Your task to perform on an android device: turn on javascript in the chrome app Image 0: 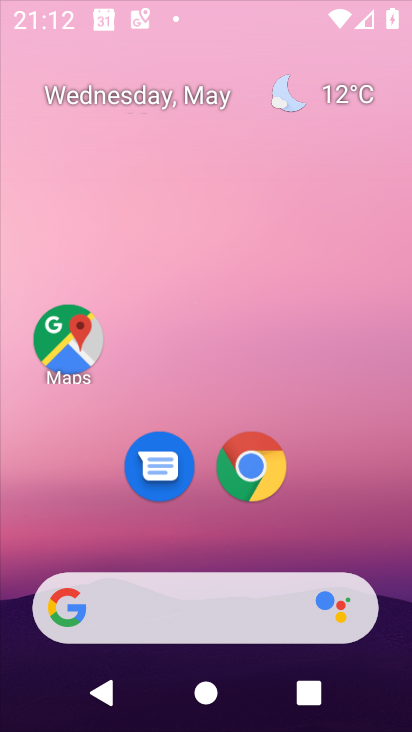
Step 0: press home button
Your task to perform on an android device: turn on javascript in the chrome app Image 1: 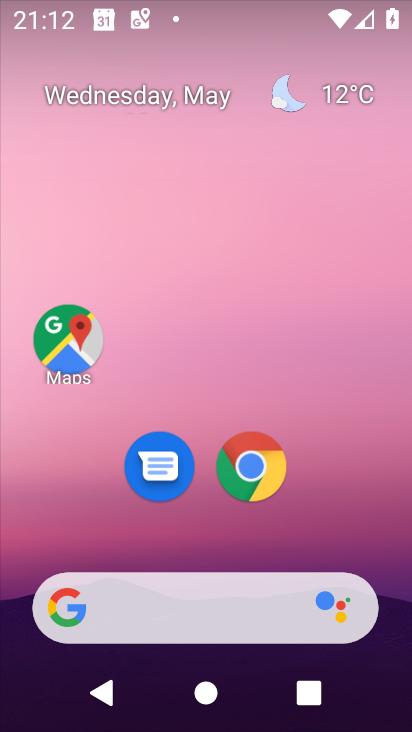
Step 1: click (242, 466)
Your task to perform on an android device: turn on javascript in the chrome app Image 2: 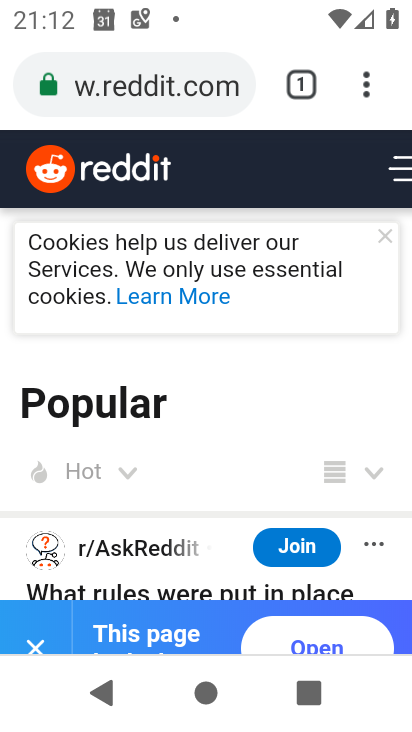
Step 2: press home button
Your task to perform on an android device: turn on javascript in the chrome app Image 3: 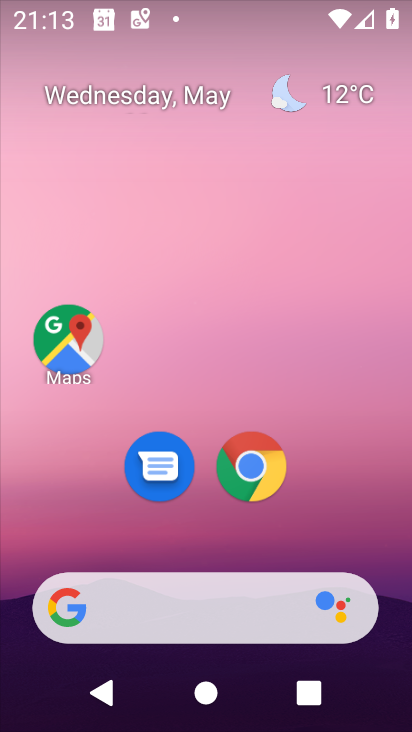
Step 3: click (254, 463)
Your task to perform on an android device: turn on javascript in the chrome app Image 4: 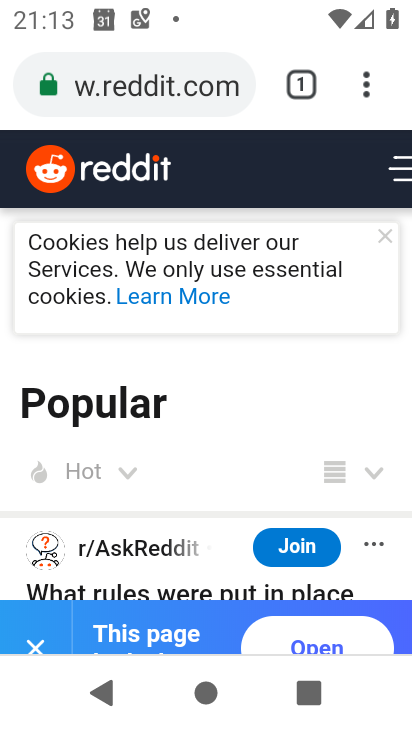
Step 4: click (355, 82)
Your task to perform on an android device: turn on javascript in the chrome app Image 5: 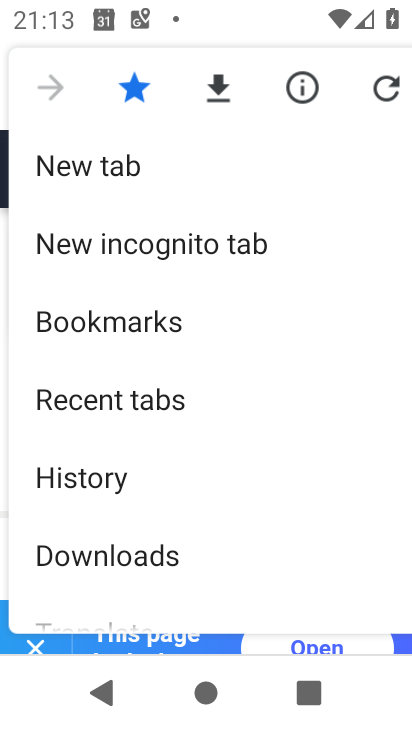
Step 5: drag from (199, 518) to (200, 110)
Your task to perform on an android device: turn on javascript in the chrome app Image 6: 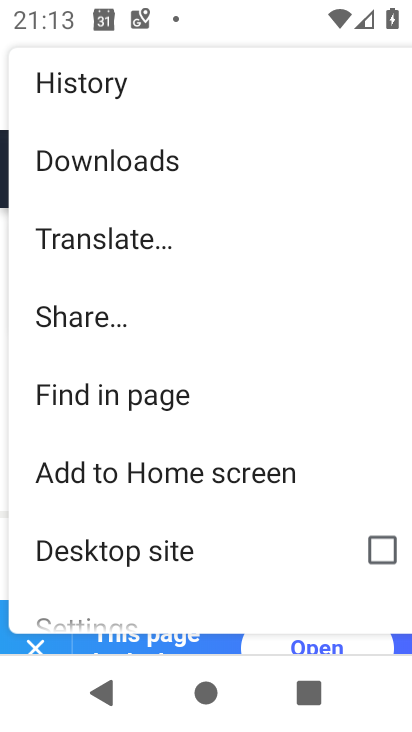
Step 6: drag from (201, 547) to (229, 139)
Your task to perform on an android device: turn on javascript in the chrome app Image 7: 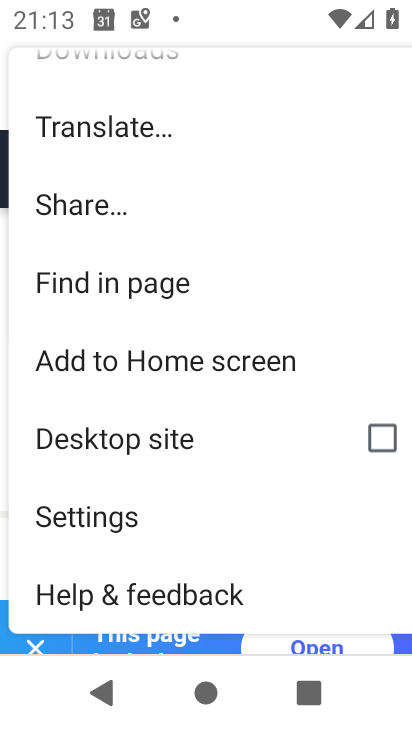
Step 7: click (147, 509)
Your task to perform on an android device: turn on javascript in the chrome app Image 8: 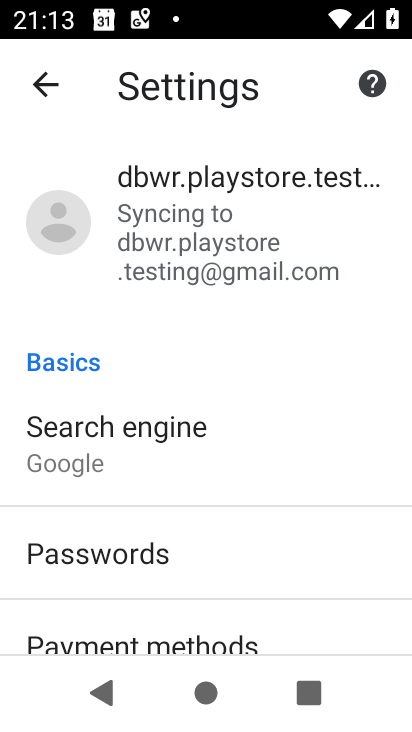
Step 8: drag from (203, 589) to (210, 241)
Your task to perform on an android device: turn on javascript in the chrome app Image 9: 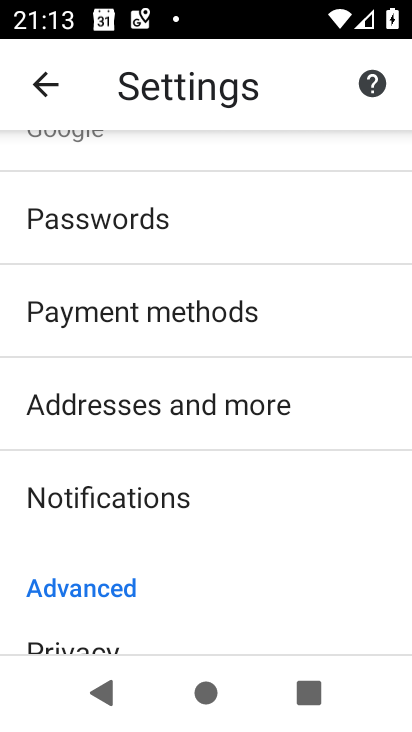
Step 9: drag from (194, 590) to (219, 79)
Your task to perform on an android device: turn on javascript in the chrome app Image 10: 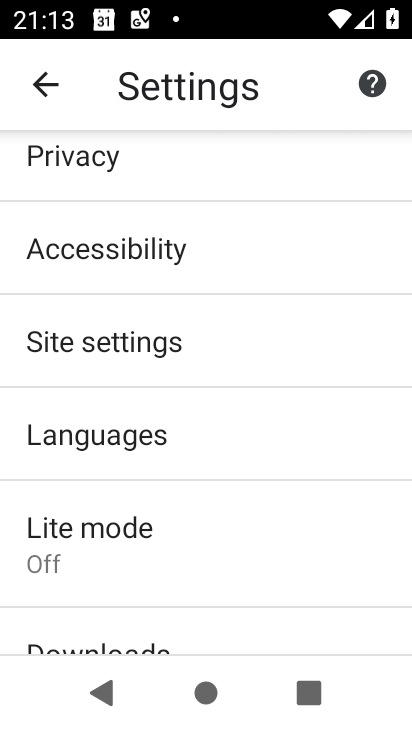
Step 10: click (182, 351)
Your task to perform on an android device: turn on javascript in the chrome app Image 11: 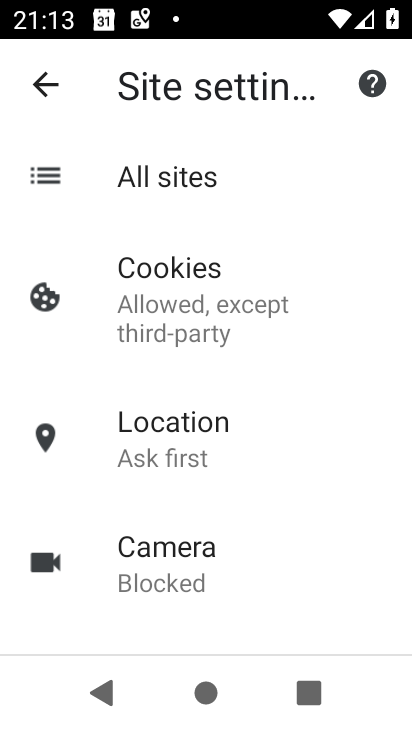
Step 11: drag from (202, 552) to (242, 120)
Your task to perform on an android device: turn on javascript in the chrome app Image 12: 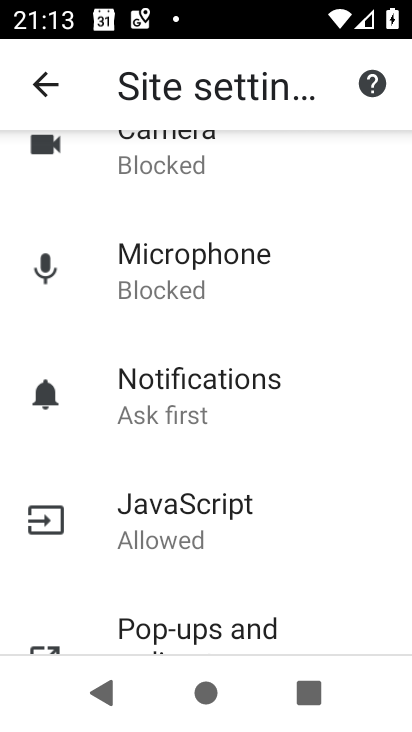
Step 12: click (211, 526)
Your task to perform on an android device: turn on javascript in the chrome app Image 13: 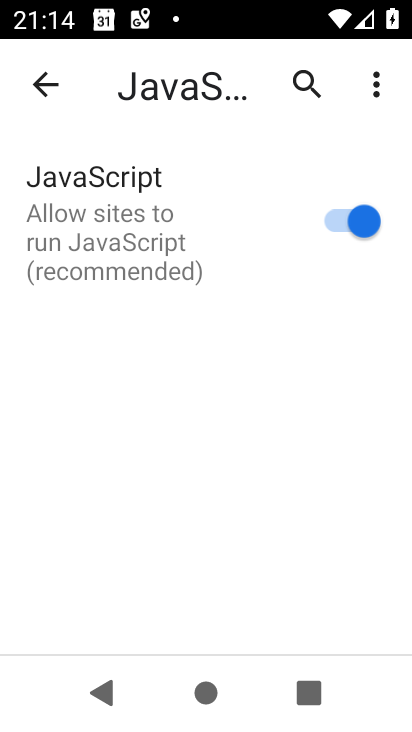
Step 13: task complete